Your task to perform on an android device: Open internet settings Image 0: 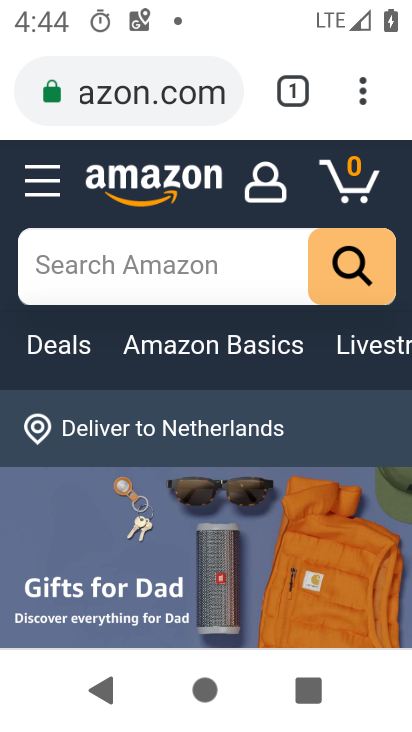
Step 0: press home button
Your task to perform on an android device: Open internet settings Image 1: 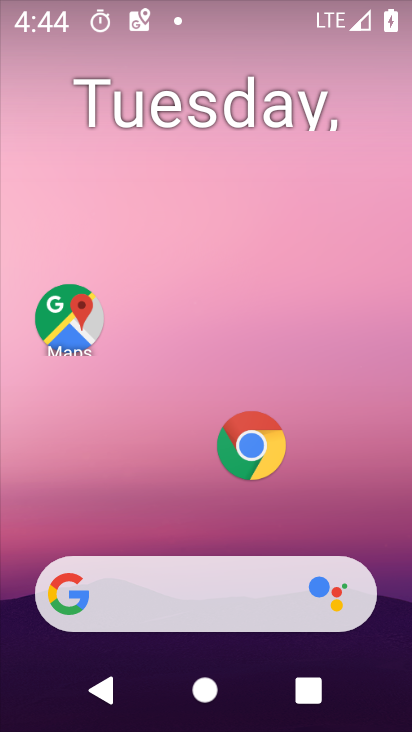
Step 1: drag from (224, 86) to (284, 0)
Your task to perform on an android device: Open internet settings Image 2: 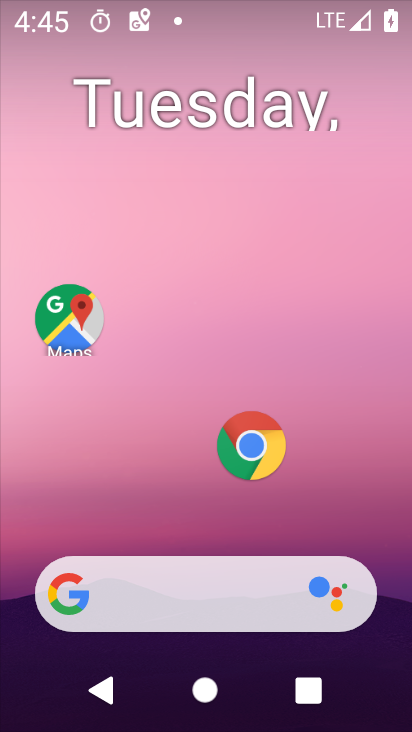
Step 2: drag from (187, 554) to (222, 8)
Your task to perform on an android device: Open internet settings Image 3: 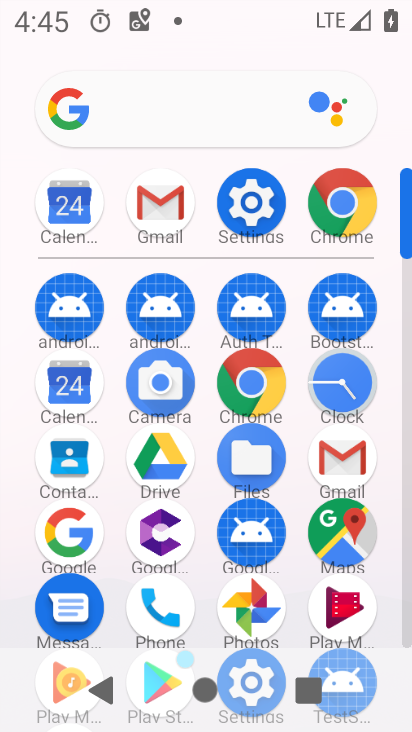
Step 3: click (271, 216)
Your task to perform on an android device: Open internet settings Image 4: 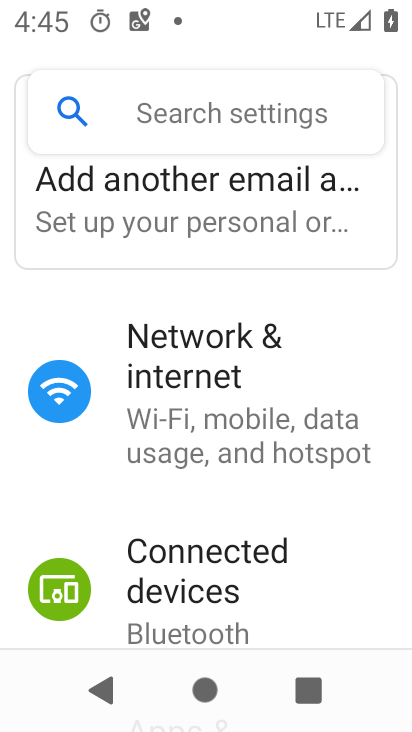
Step 4: click (206, 396)
Your task to perform on an android device: Open internet settings Image 5: 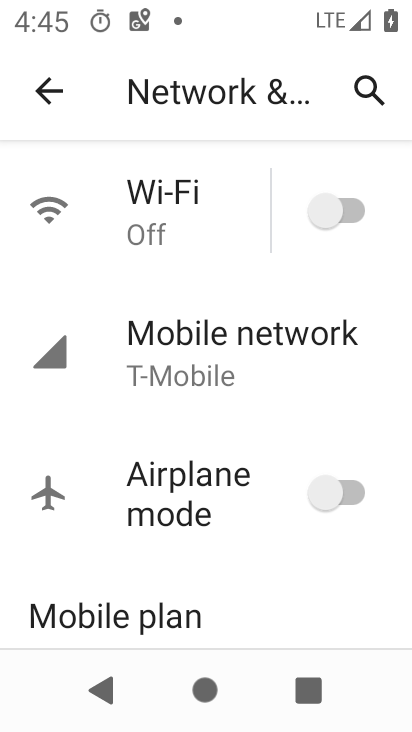
Step 5: task complete